Your task to perform on an android device: Go to Amazon Image 0: 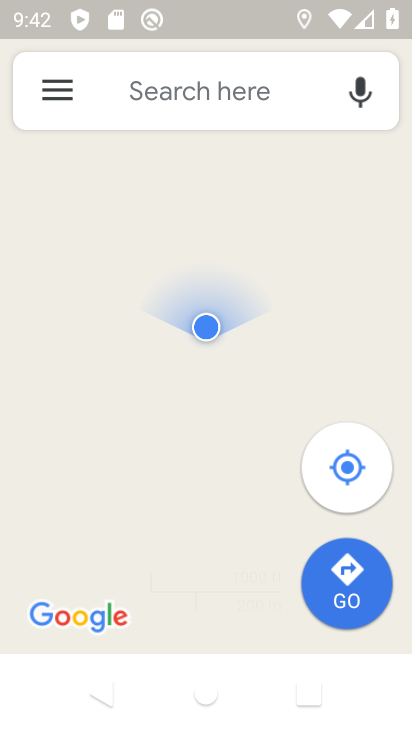
Step 0: press home button
Your task to perform on an android device: Go to Amazon Image 1: 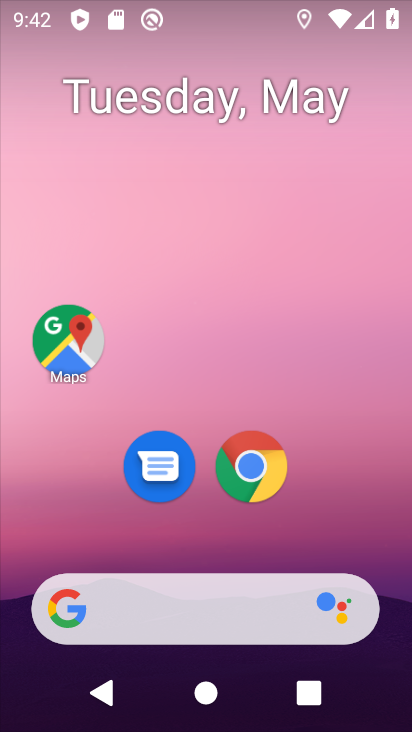
Step 1: click (256, 462)
Your task to perform on an android device: Go to Amazon Image 2: 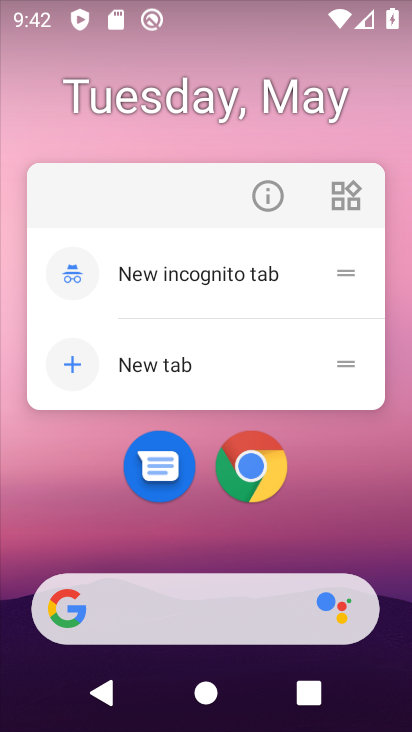
Step 2: click (261, 489)
Your task to perform on an android device: Go to Amazon Image 3: 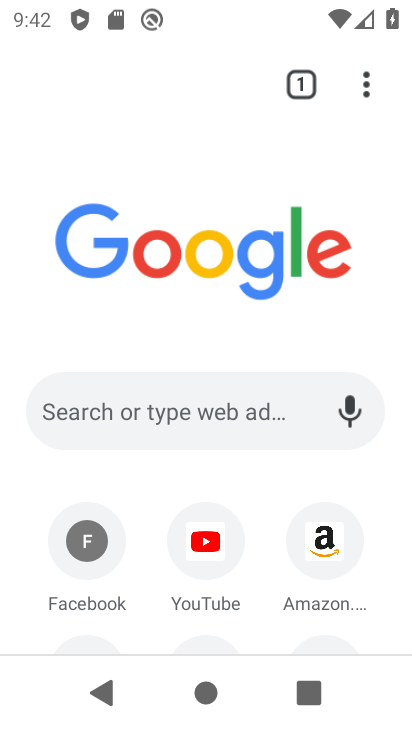
Step 3: click (315, 546)
Your task to perform on an android device: Go to Amazon Image 4: 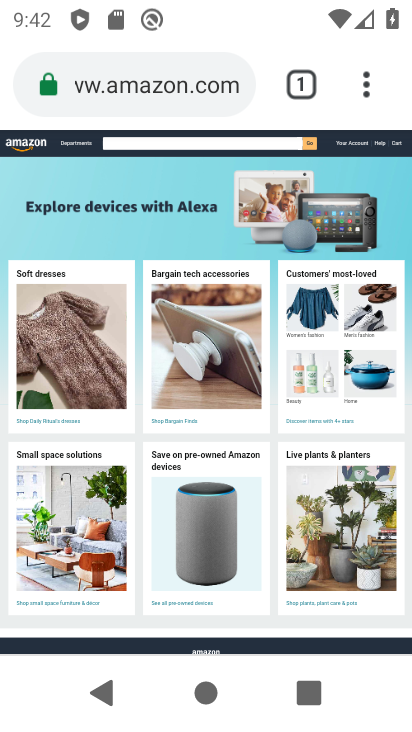
Step 4: task complete